Your task to perform on an android device: Is it going to rain this weekend? Image 0: 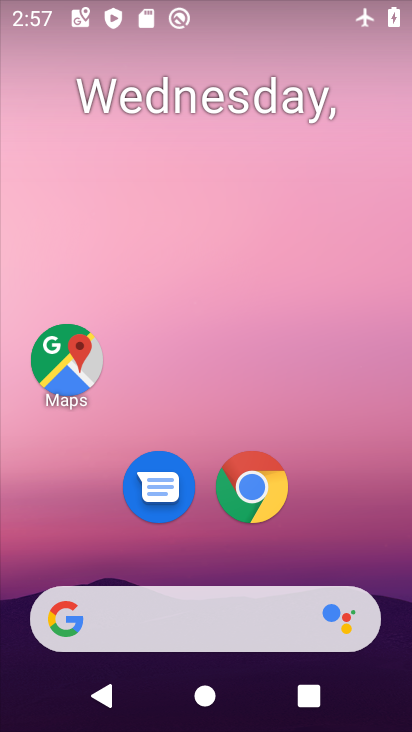
Step 0: click (236, 624)
Your task to perform on an android device: Is it going to rain this weekend? Image 1: 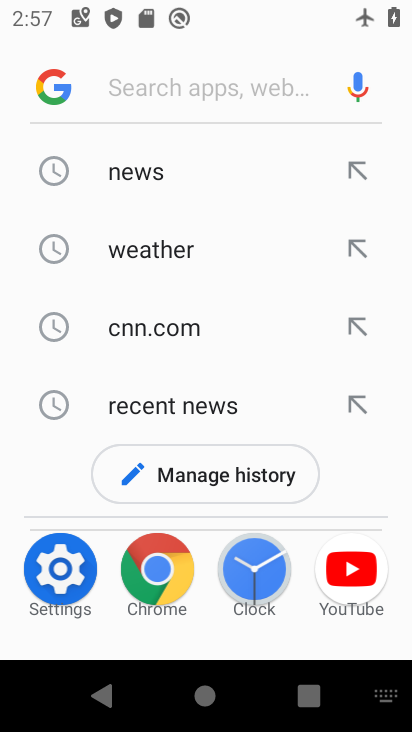
Step 1: click (142, 255)
Your task to perform on an android device: Is it going to rain this weekend? Image 2: 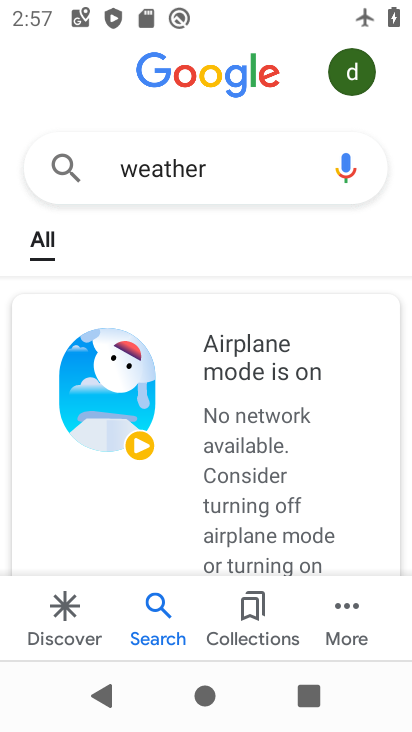
Step 2: task complete